Your task to perform on an android device: Clear all items from cart on target. Add apple airpods to the cart on target Image 0: 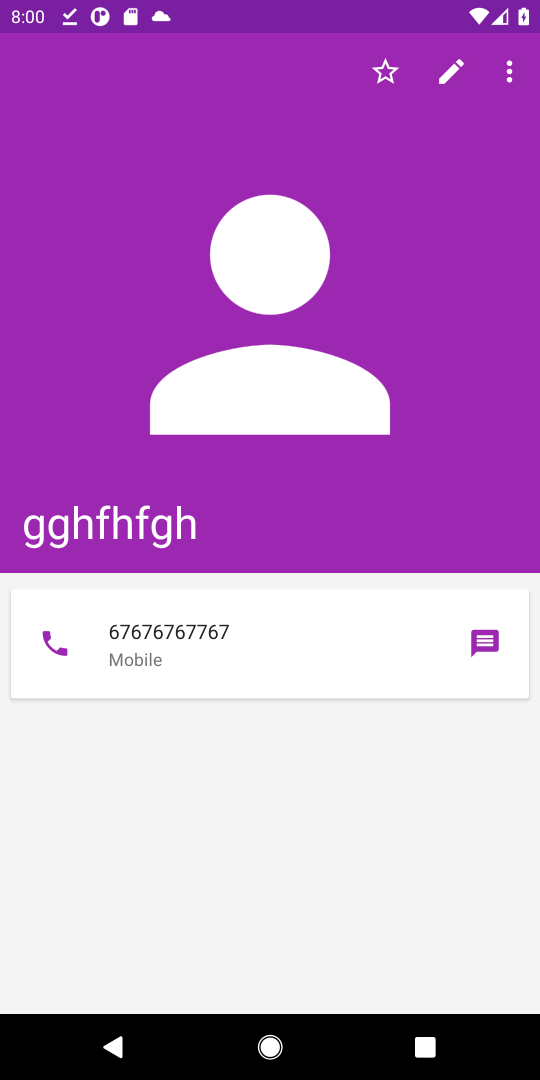
Step 0: press home button
Your task to perform on an android device: Clear all items from cart on target. Add apple airpods to the cart on target Image 1: 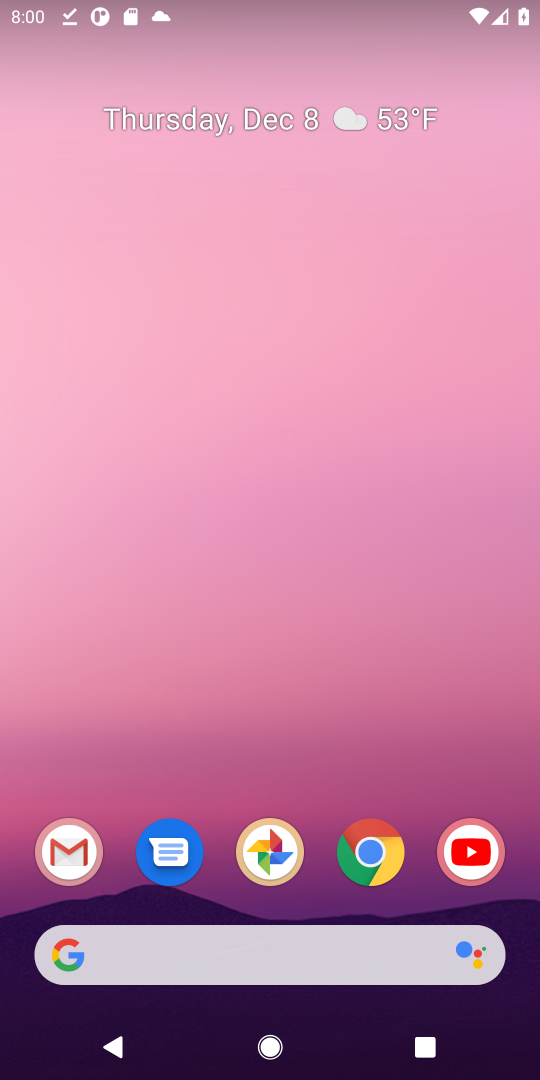
Step 1: click (203, 973)
Your task to perform on an android device: Clear all items from cart on target. Add apple airpods to the cart on target Image 2: 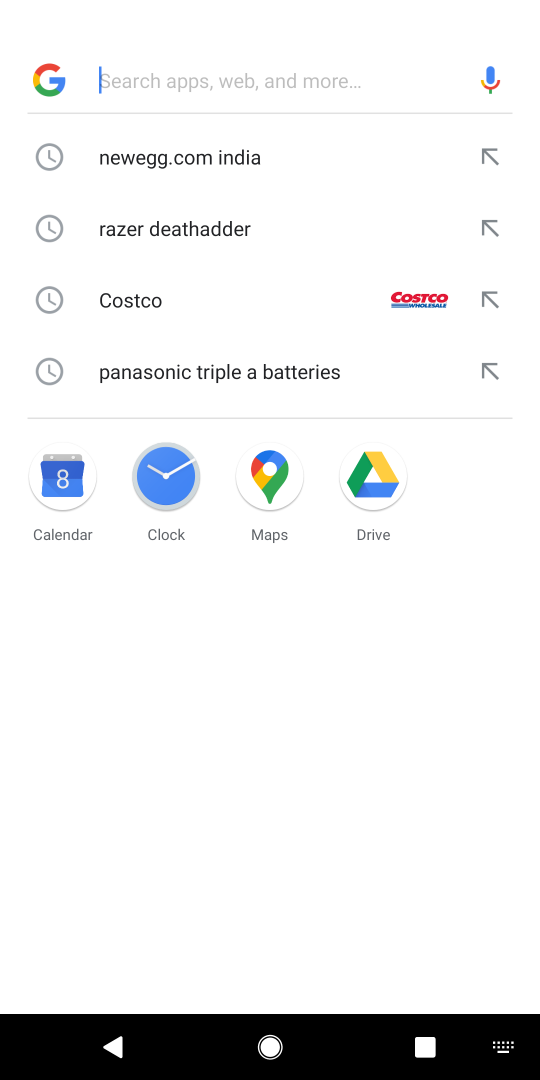
Step 2: type "target"
Your task to perform on an android device: Clear all items from cart on target. Add apple airpods to the cart on target Image 3: 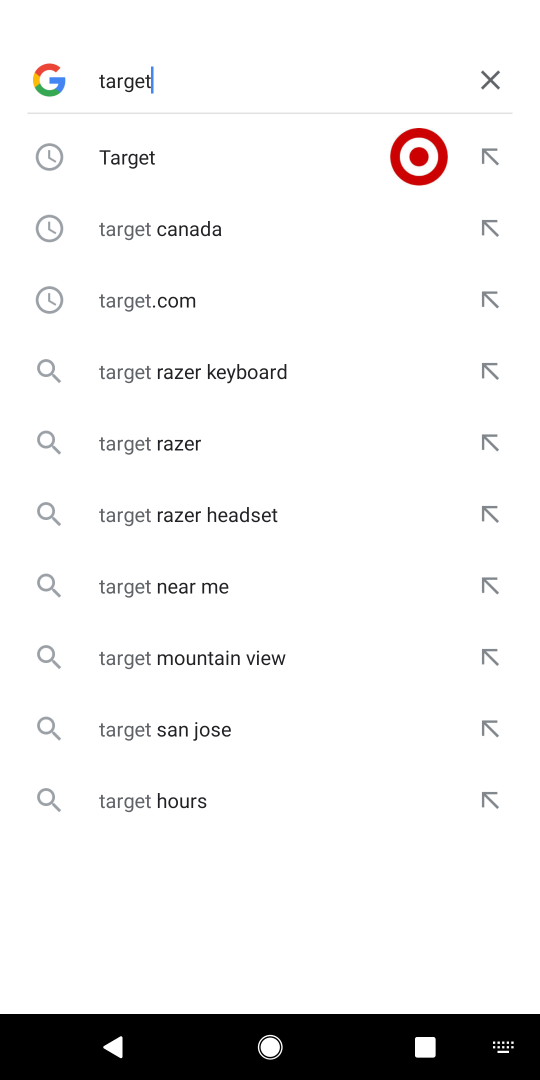
Step 3: click (155, 175)
Your task to perform on an android device: Clear all items from cart on target. Add apple airpods to the cart on target Image 4: 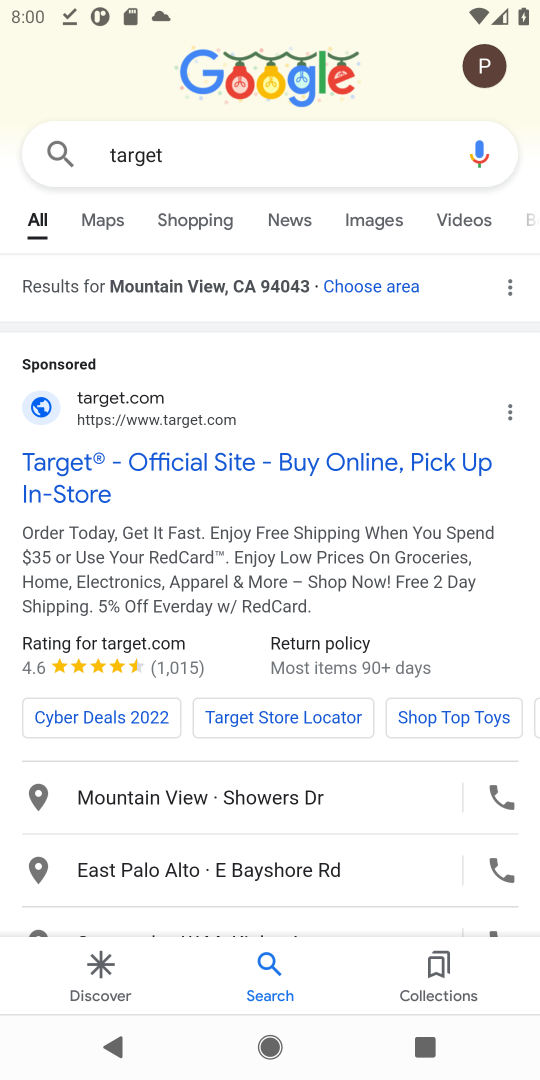
Step 4: click (106, 446)
Your task to perform on an android device: Clear all items from cart on target. Add apple airpods to the cart on target Image 5: 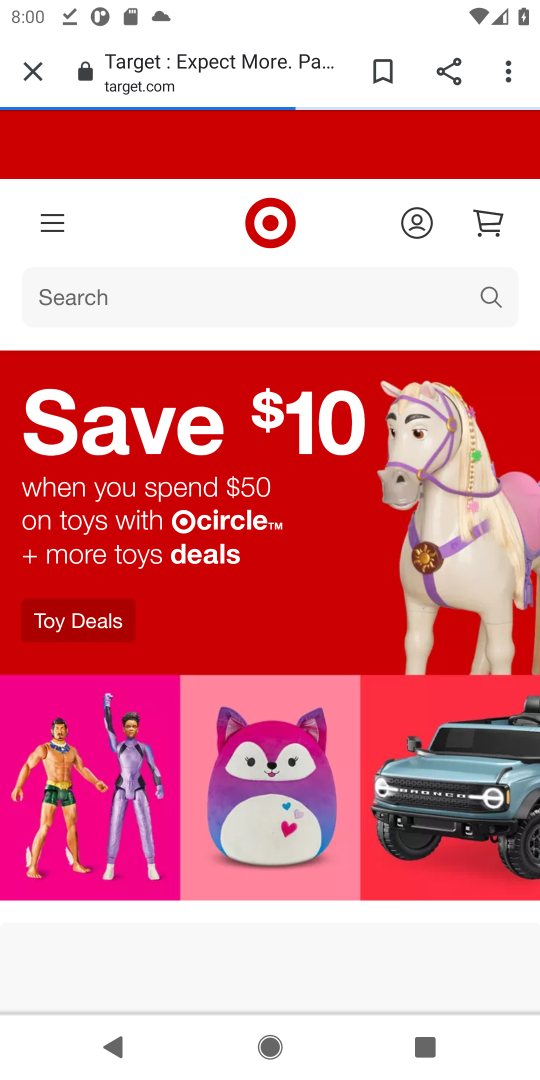
Step 5: click (178, 306)
Your task to perform on an android device: Clear all items from cart on target. Add apple airpods to the cart on target Image 6: 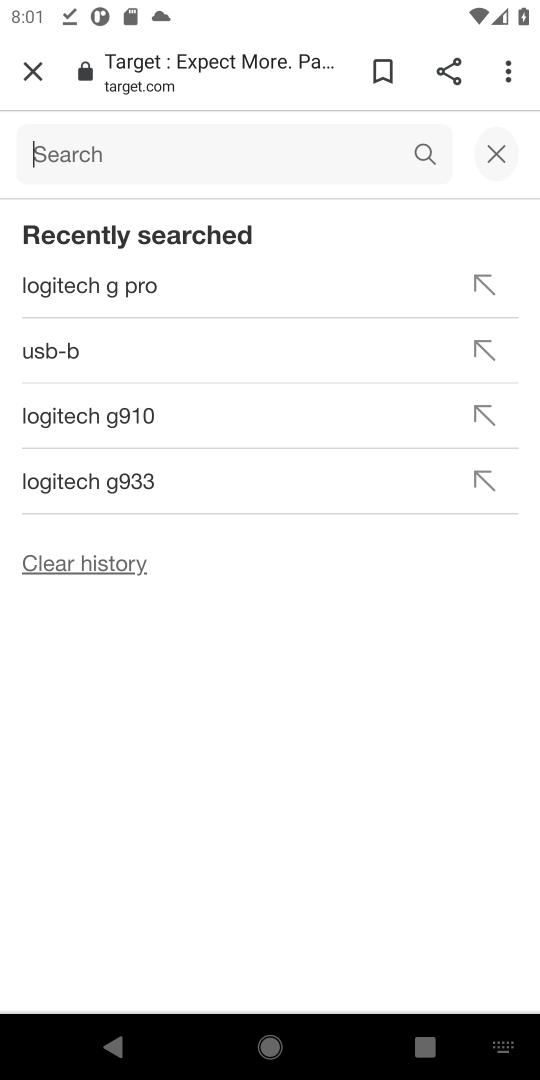
Step 6: type "apple airpd"
Your task to perform on an android device: Clear all items from cart on target. Add apple airpods to the cart on target Image 7: 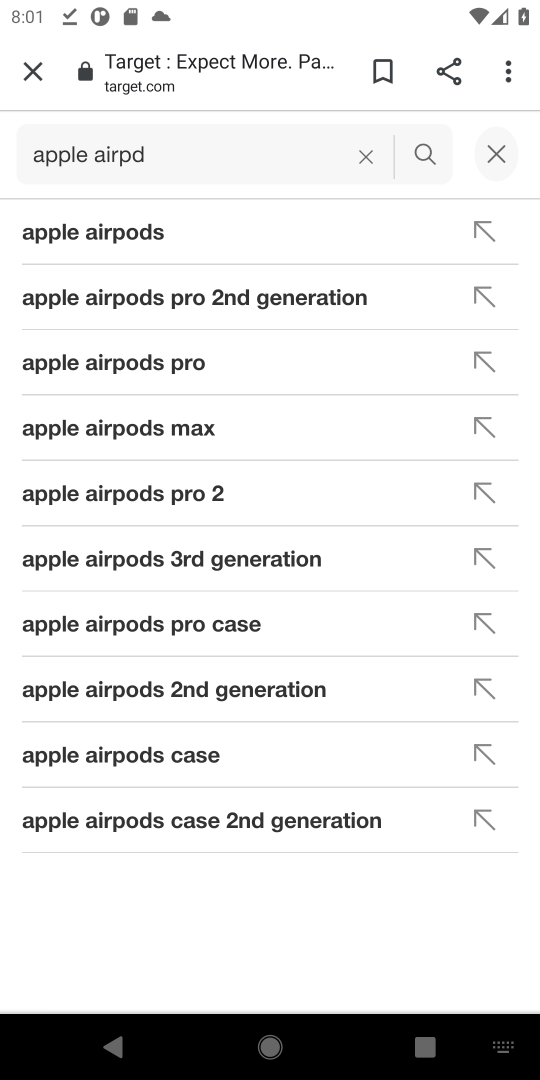
Step 7: click (73, 223)
Your task to perform on an android device: Clear all items from cart on target. Add apple airpods to the cart on target Image 8: 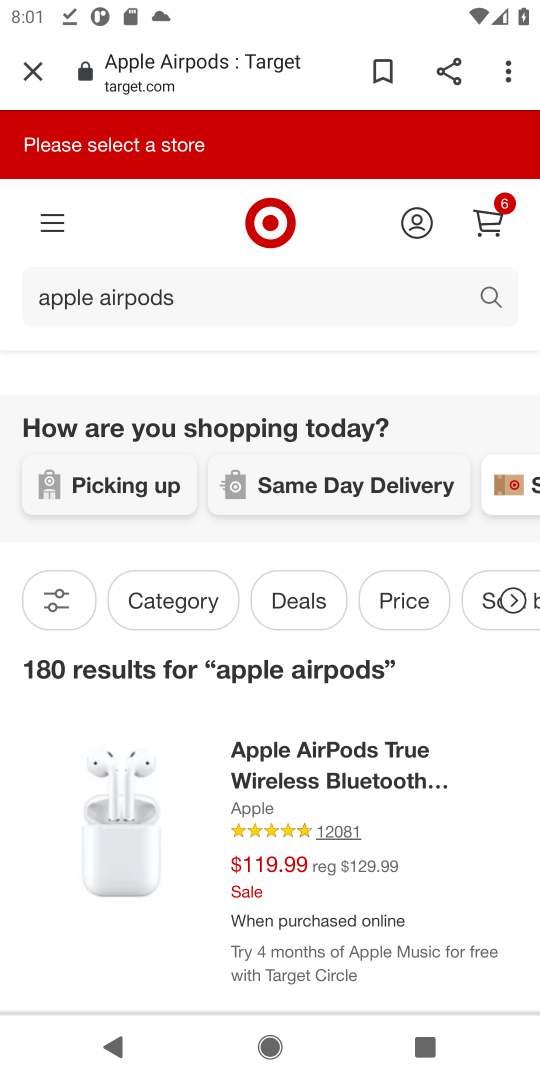
Step 8: click (382, 793)
Your task to perform on an android device: Clear all items from cart on target. Add apple airpods to the cart on target Image 9: 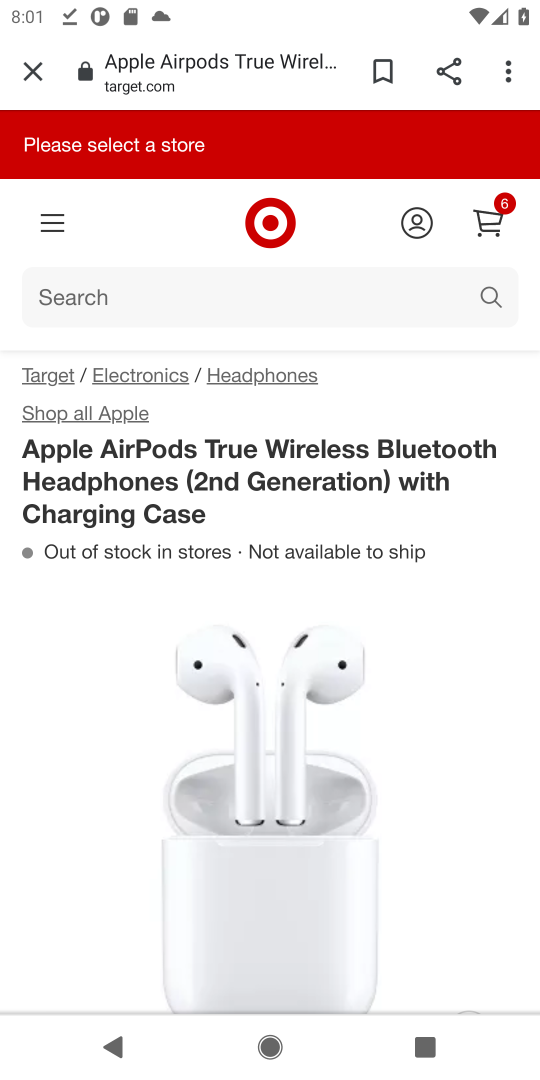
Step 9: drag from (341, 808) to (320, 288)
Your task to perform on an android device: Clear all items from cart on target. Add apple airpods to the cart on target Image 10: 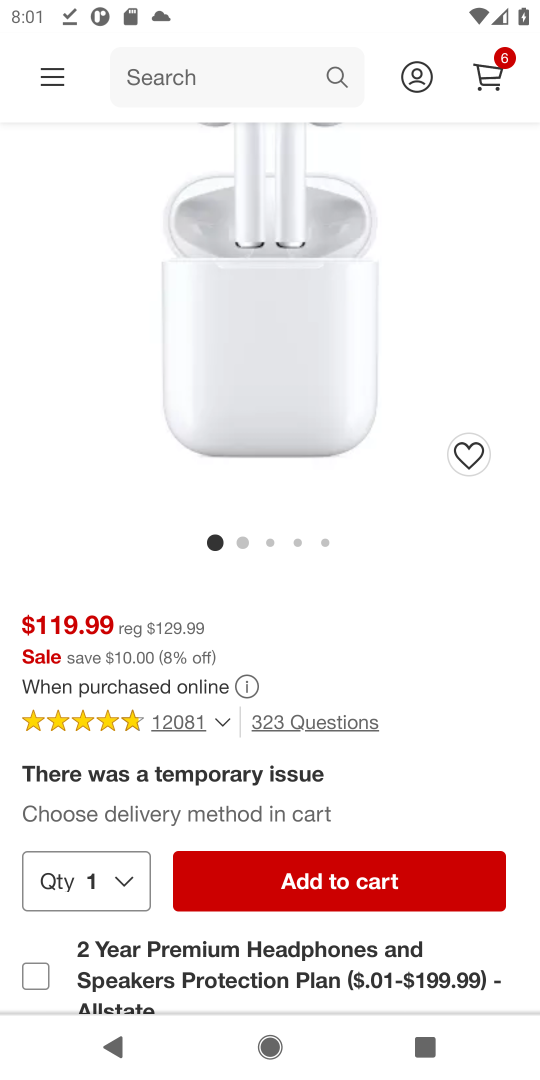
Step 10: click (308, 884)
Your task to perform on an android device: Clear all items from cart on target. Add apple airpods to the cart on target Image 11: 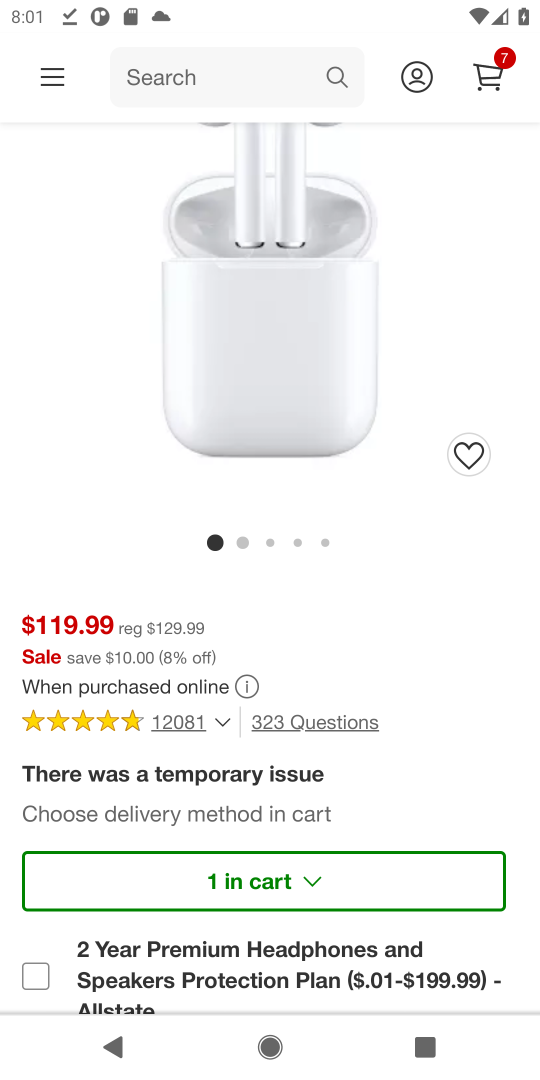
Step 11: task complete